Your task to perform on an android device: turn smart compose on in the gmail app Image 0: 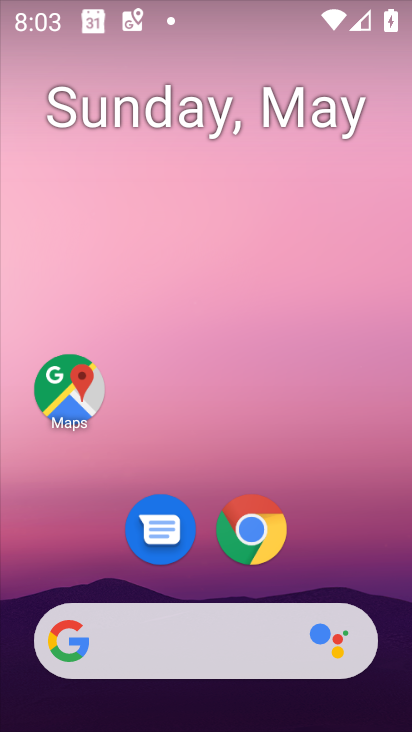
Step 0: drag from (333, 573) to (341, 1)
Your task to perform on an android device: turn smart compose on in the gmail app Image 1: 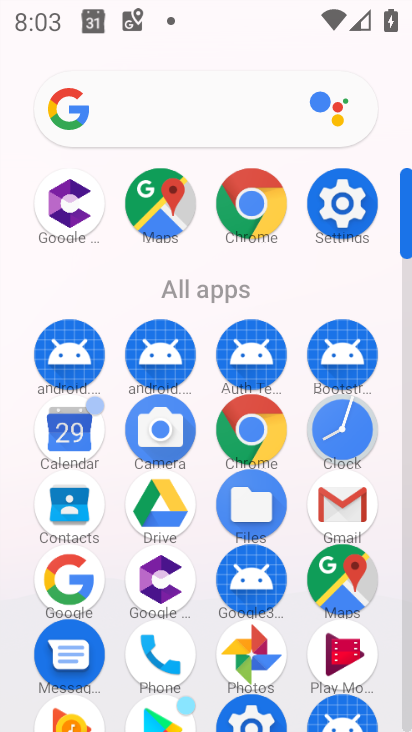
Step 1: click (352, 471)
Your task to perform on an android device: turn smart compose on in the gmail app Image 2: 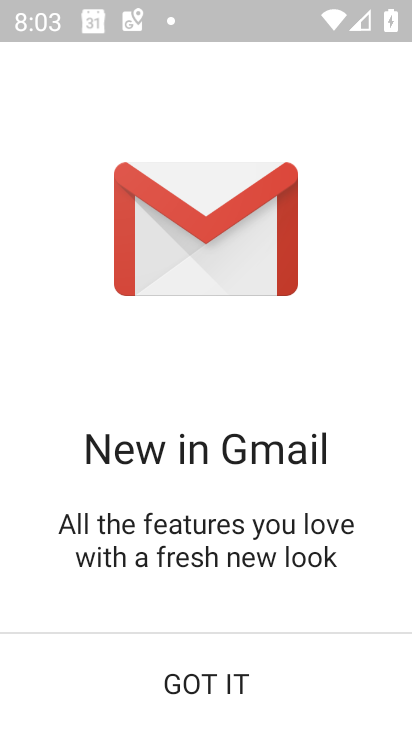
Step 2: click (211, 677)
Your task to perform on an android device: turn smart compose on in the gmail app Image 3: 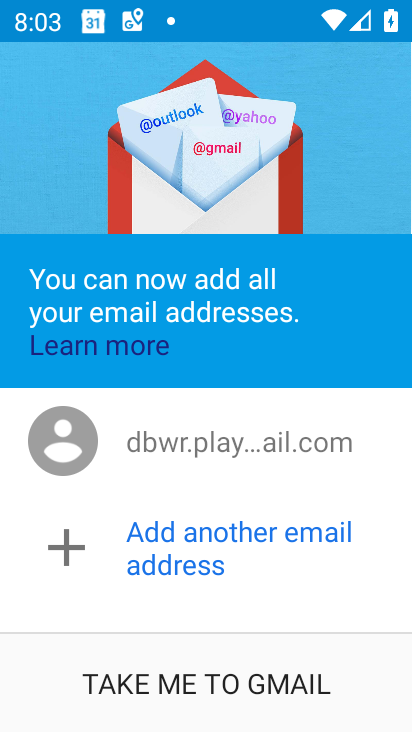
Step 3: click (211, 677)
Your task to perform on an android device: turn smart compose on in the gmail app Image 4: 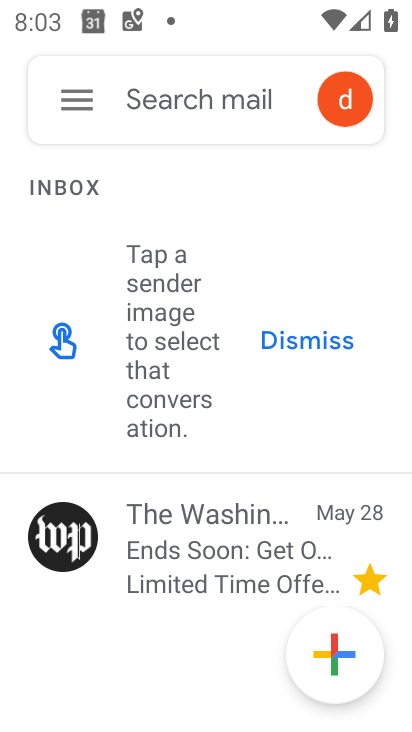
Step 4: click (53, 100)
Your task to perform on an android device: turn smart compose on in the gmail app Image 5: 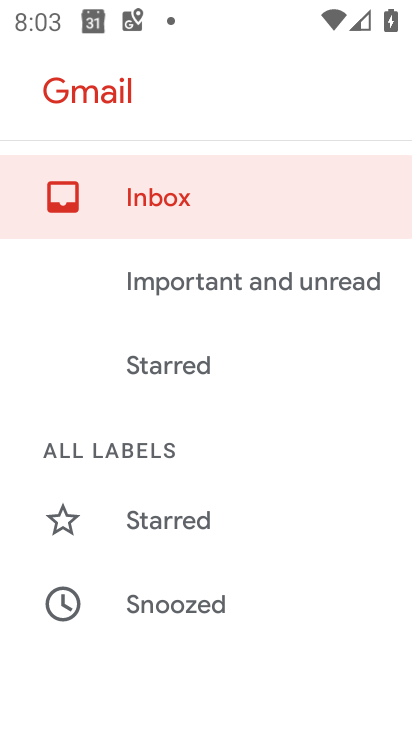
Step 5: task complete